Your task to perform on an android device: Show me the alarms in the clock app Image 0: 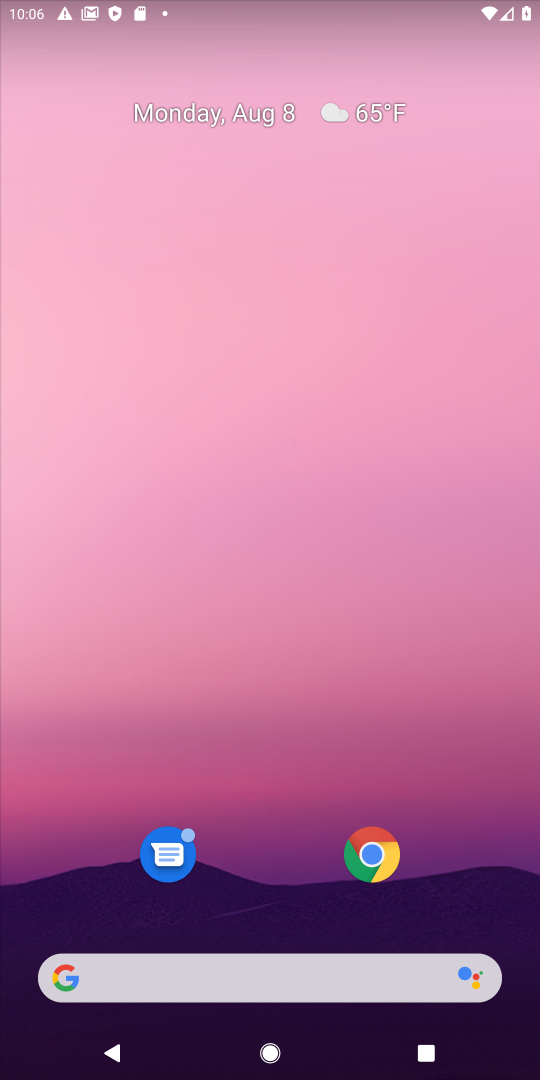
Step 0: drag from (247, 898) to (259, 28)
Your task to perform on an android device: Show me the alarms in the clock app Image 1: 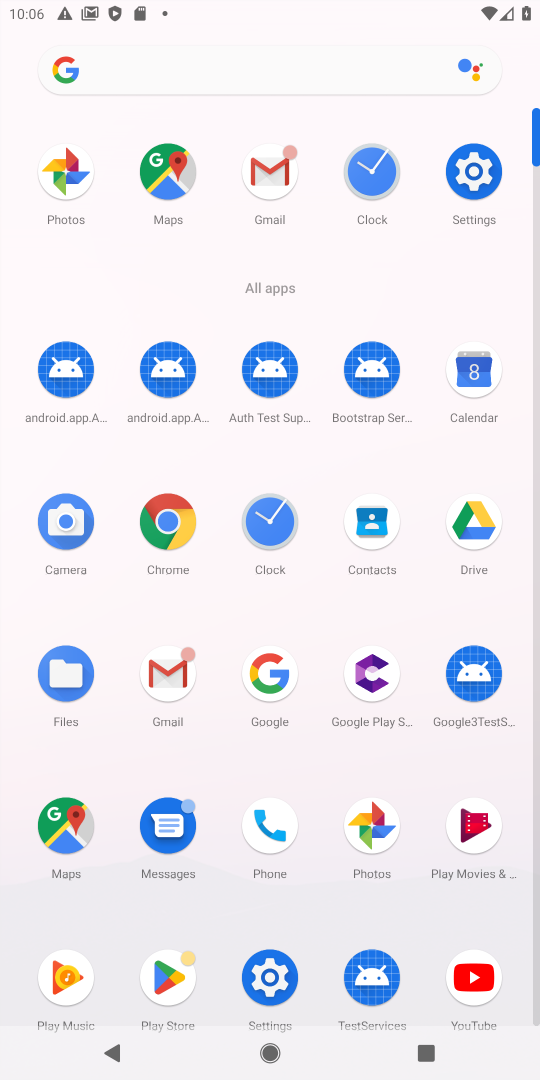
Step 1: click (365, 217)
Your task to perform on an android device: Show me the alarms in the clock app Image 2: 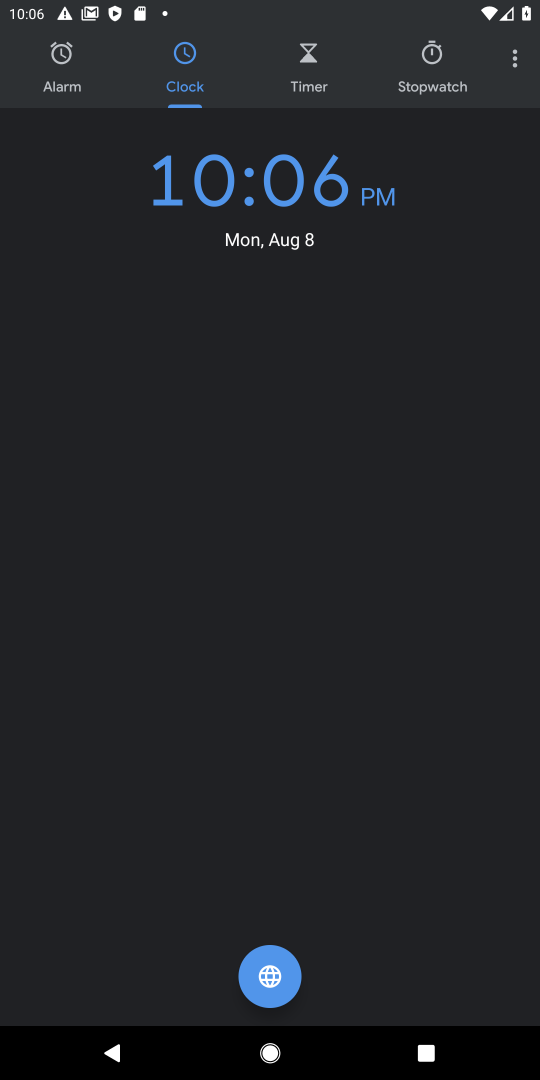
Step 2: click (71, 63)
Your task to perform on an android device: Show me the alarms in the clock app Image 3: 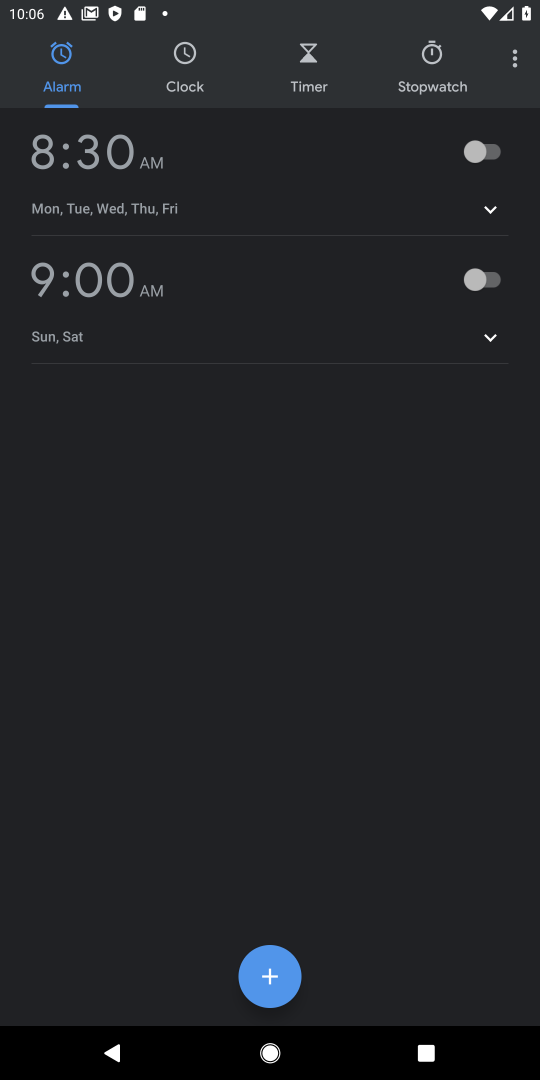
Step 3: task complete